Your task to perform on an android device: Go to Google Image 0: 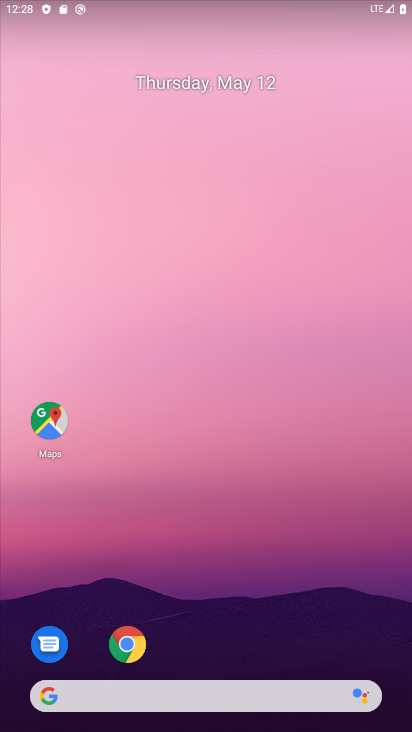
Step 0: drag from (258, 609) to (268, 204)
Your task to perform on an android device: Go to Google Image 1: 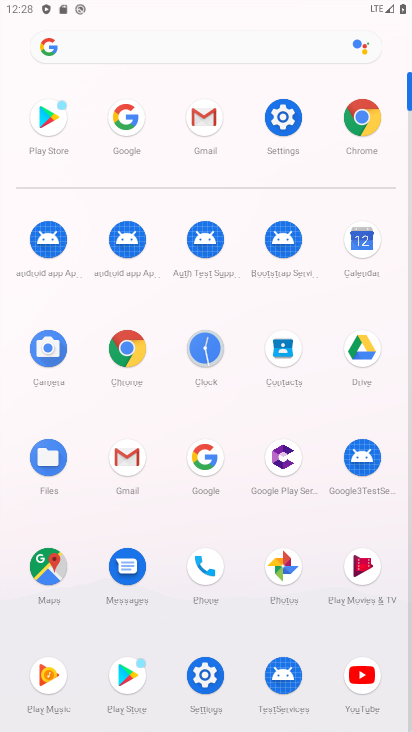
Step 1: click (212, 456)
Your task to perform on an android device: Go to Google Image 2: 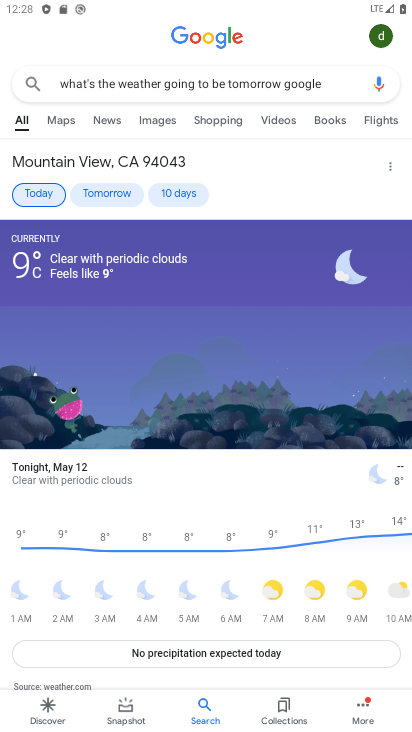
Step 2: task complete